Your task to perform on an android device: choose inbox layout in the gmail app Image 0: 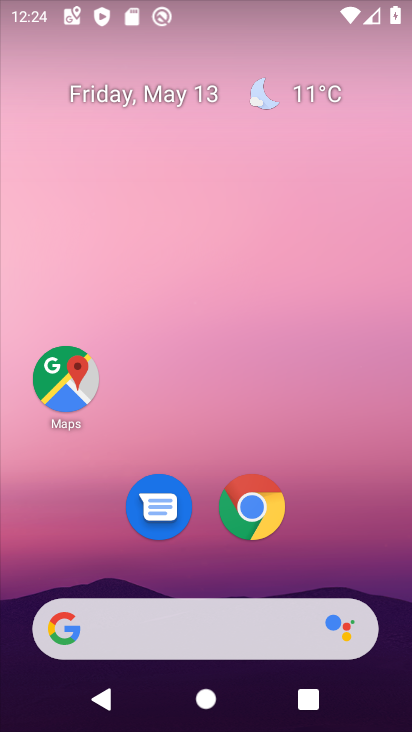
Step 0: drag from (220, 570) to (233, 22)
Your task to perform on an android device: choose inbox layout in the gmail app Image 1: 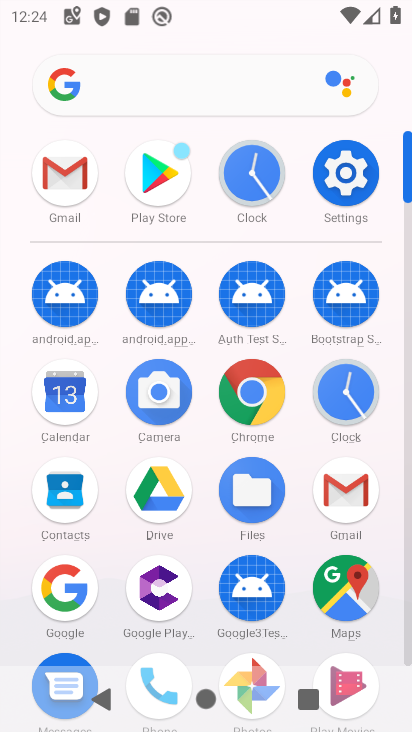
Step 1: click (326, 493)
Your task to perform on an android device: choose inbox layout in the gmail app Image 2: 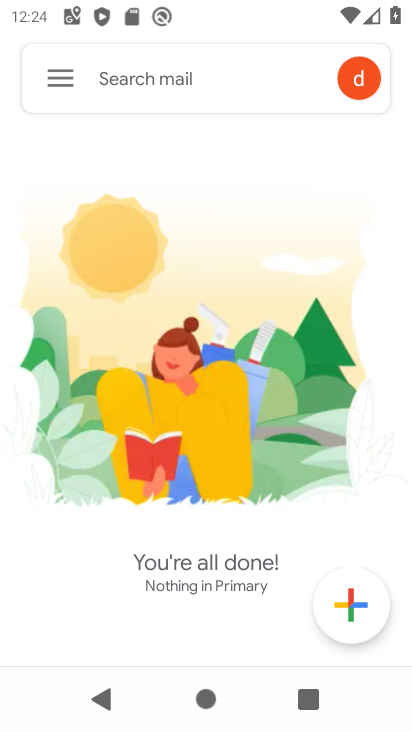
Step 2: click (47, 80)
Your task to perform on an android device: choose inbox layout in the gmail app Image 3: 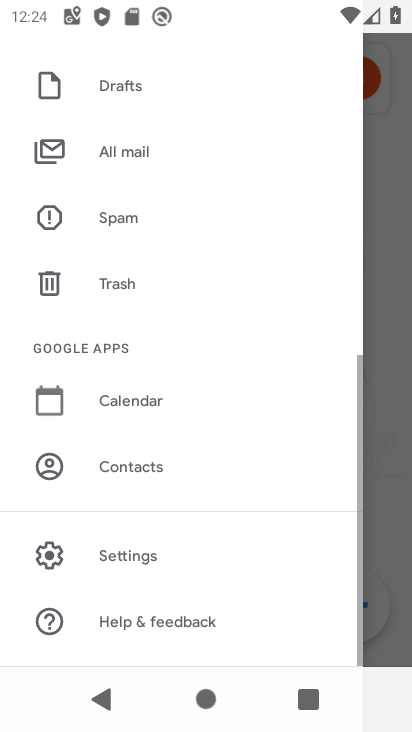
Step 3: click (150, 548)
Your task to perform on an android device: choose inbox layout in the gmail app Image 4: 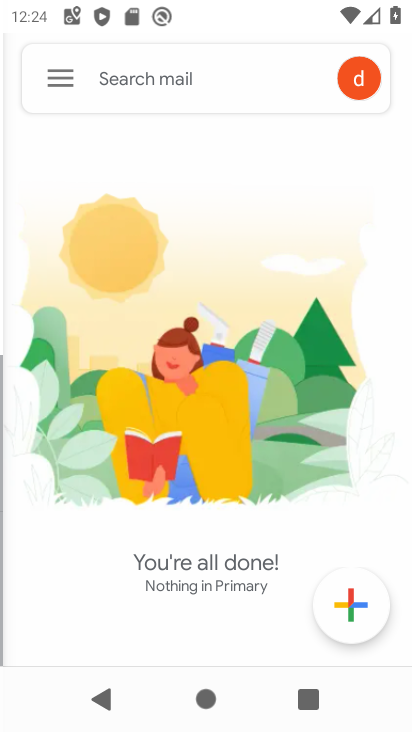
Step 4: drag from (150, 548) to (131, 15)
Your task to perform on an android device: choose inbox layout in the gmail app Image 5: 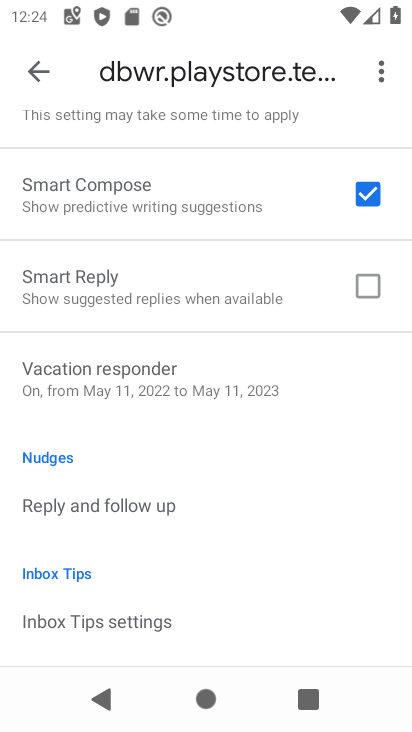
Step 5: drag from (141, 265) to (158, 718)
Your task to perform on an android device: choose inbox layout in the gmail app Image 6: 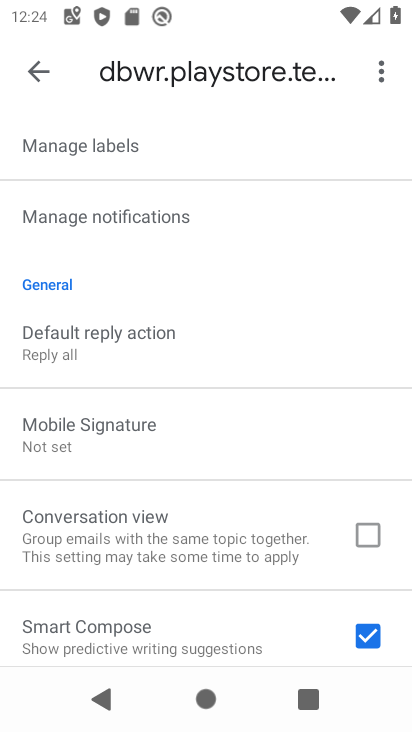
Step 6: drag from (128, 303) to (108, 727)
Your task to perform on an android device: choose inbox layout in the gmail app Image 7: 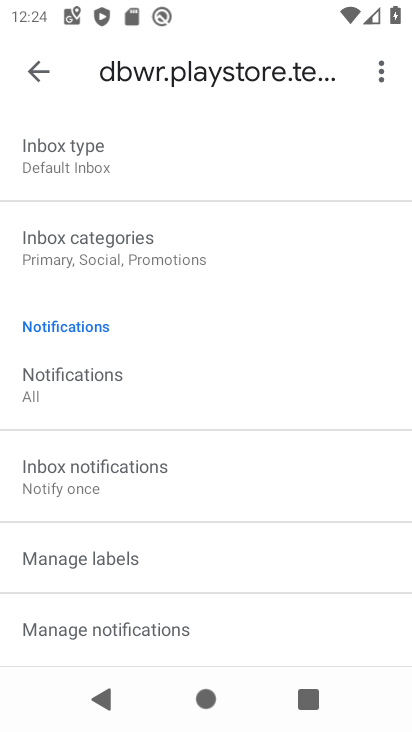
Step 7: click (92, 179)
Your task to perform on an android device: choose inbox layout in the gmail app Image 8: 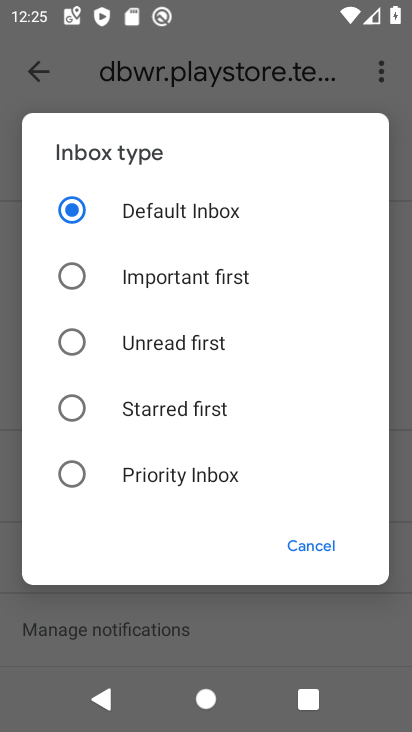
Step 8: task complete